Your task to perform on an android device: manage bookmarks in the chrome app Image 0: 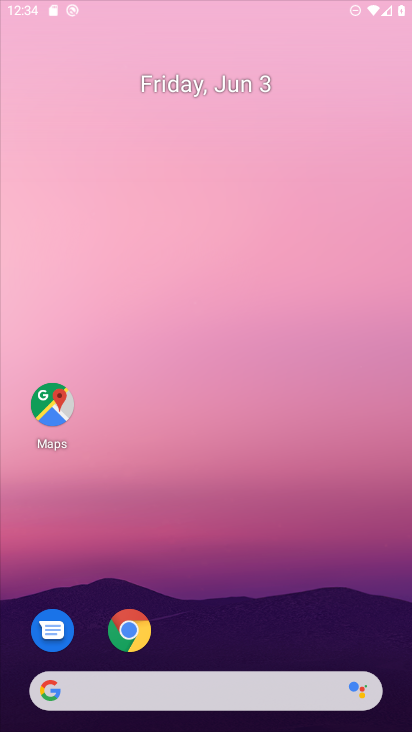
Step 0: click (125, 191)
Your task to perform on an android device: manage bookmarks in the chrome app Image 1: 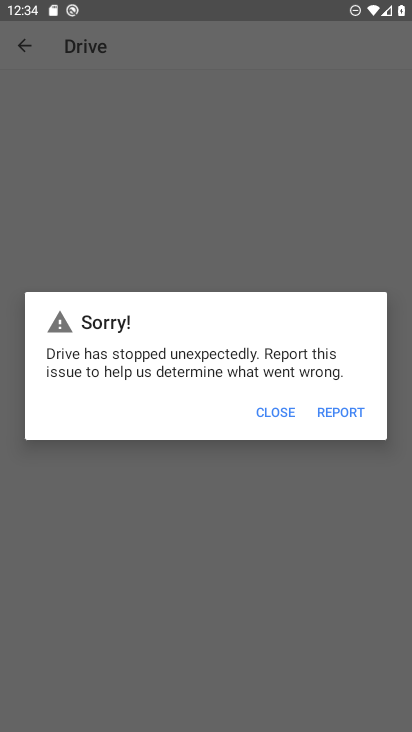
Step 1: press home button
Your task to perform on an android device: manage bookmarks in the chrome app Image 2: 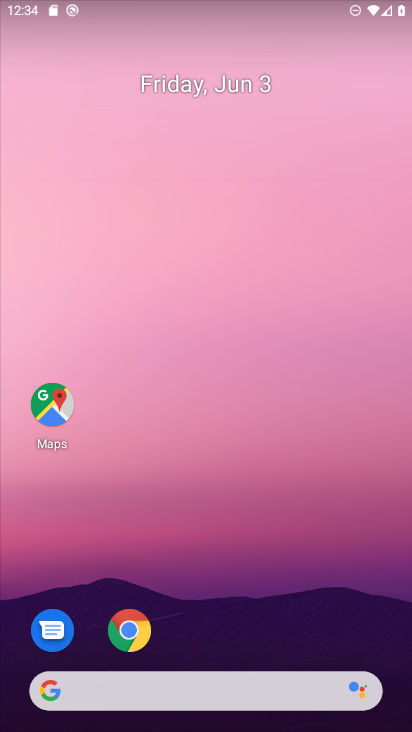
Step 2: click (145, 626)
Your task to perform on an android device: manage bookmarks in the chrome app Image 3: 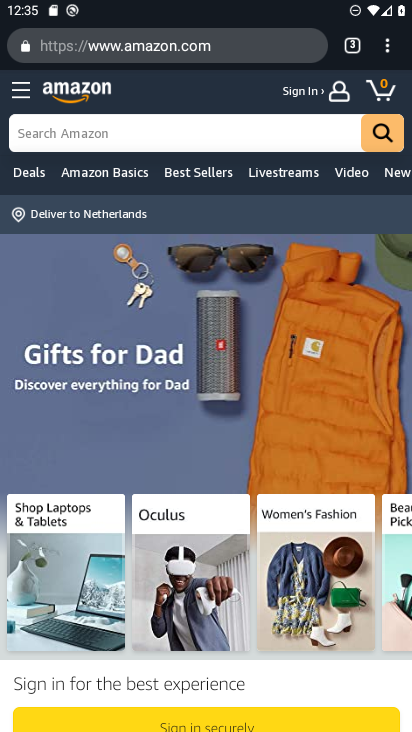
Step 3: click (389, 48)
Your task to perform on an android device: manage bookmarks in the chrome app Image 4: 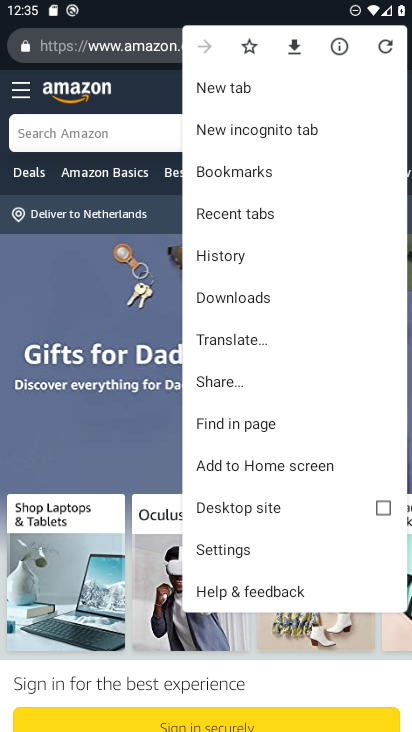
Step 4: click (276, 178)
Your task to perform on an android device: manage bookmarks in the chrome app Image 5: 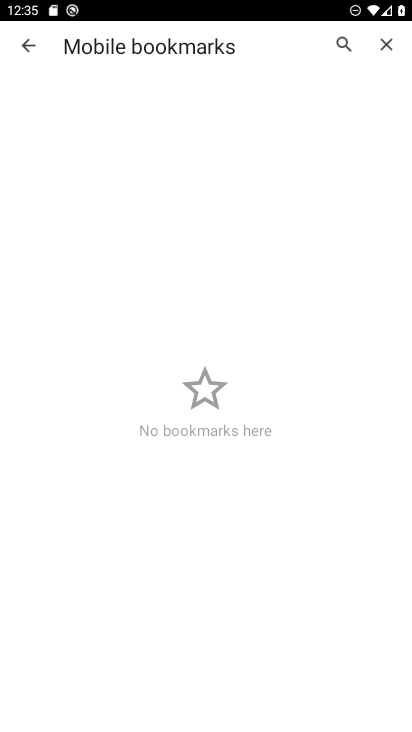
Step 5: task complete